Your task to perform on an android device: toggle show notifications on the lock screen Image 0: 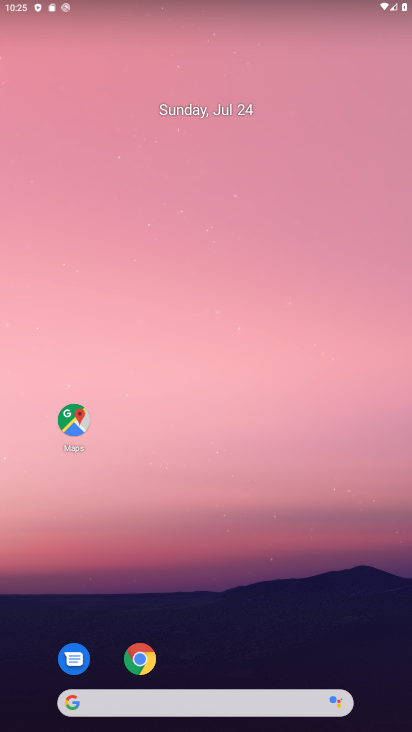
Step 0: drag from (263, 632) to (43, 259)
Your task to perform on an android device: toggle show notifications on the lock screen Image 1: 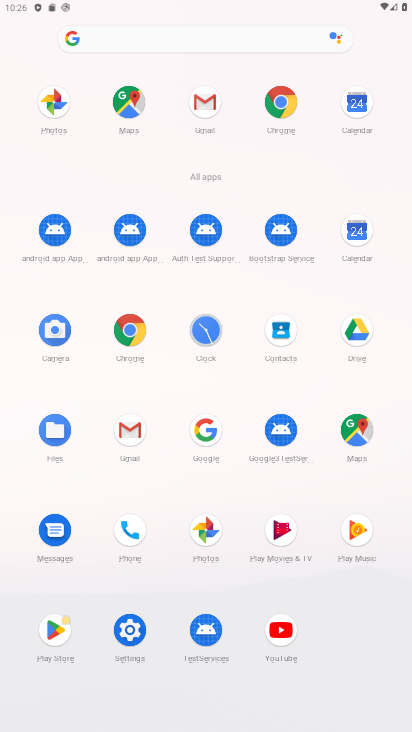
Step 1: click (136, 641)
Your task to perform on an android device: toggle show notifications on the lock screen Image 2: 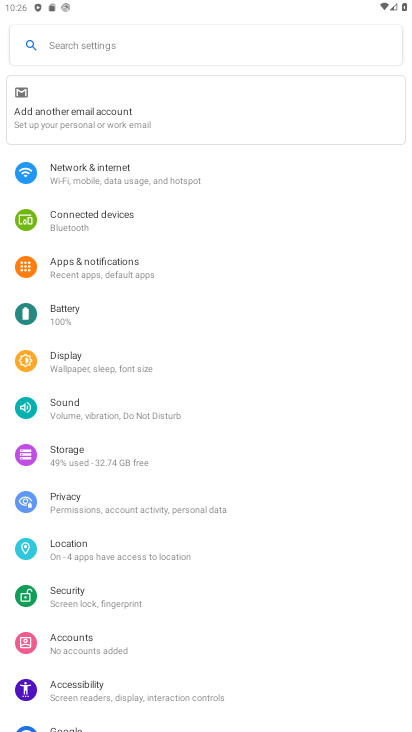
Step 2: click (94, 277)
Your task to perform on an android device: toggle show notifications on the lock screen Image 3: 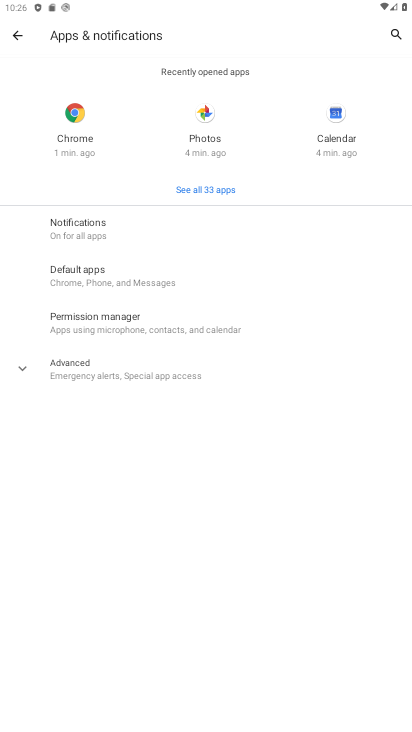
Step 3: click (90, 229)
Your task to perform on an android device: toggle show notifications on the lock screen Image 4: 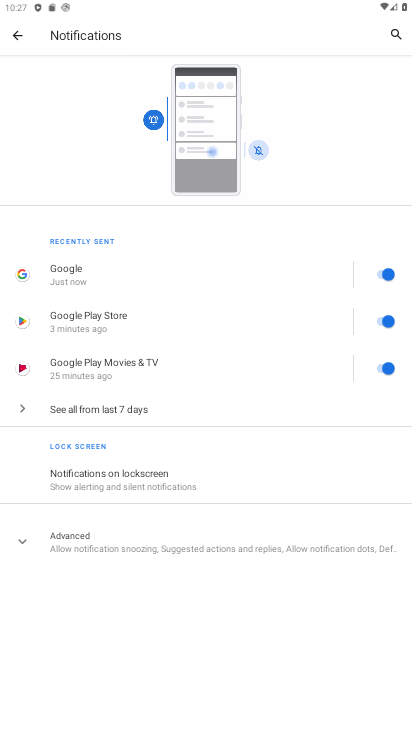
Step 4: click (97, 463)
Your task to perform on an android device: toggle show notifications on the lock screen Image 5: 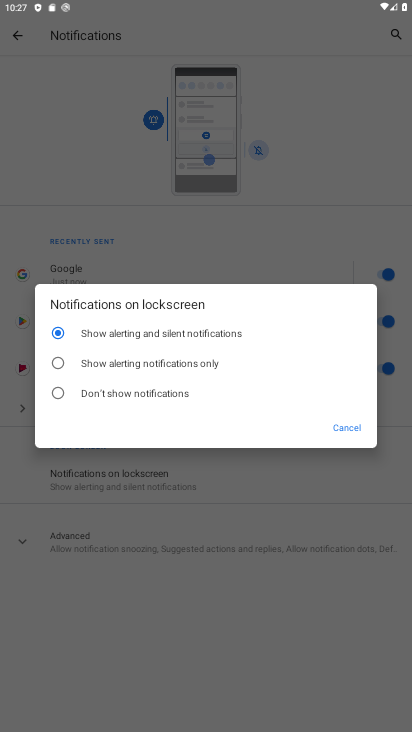
Step 5: click (64, 352)
Your task to perform on an android device: toggle show notifications on the lock screen Image 6: 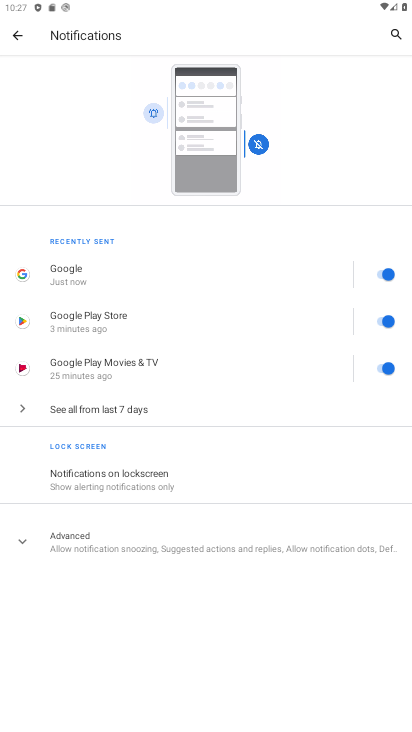
Step 6: task complete